Your task to perform on an android device: Go to privacy settings Image 0: 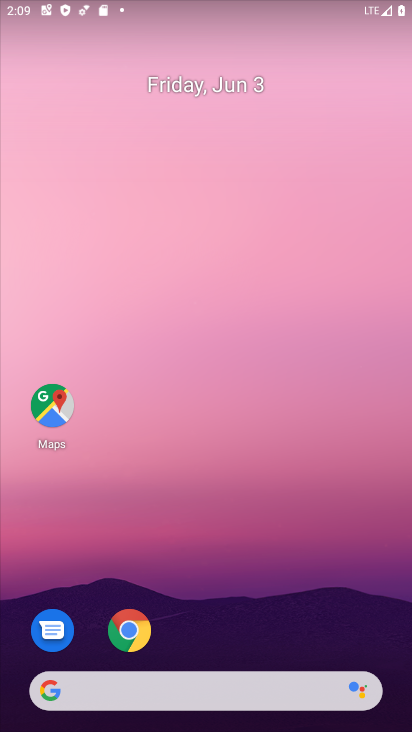
Step 0: drag from (226, 729) to (195, 134)
Your task to perform on an android device: Go to privacy settings Image 1: 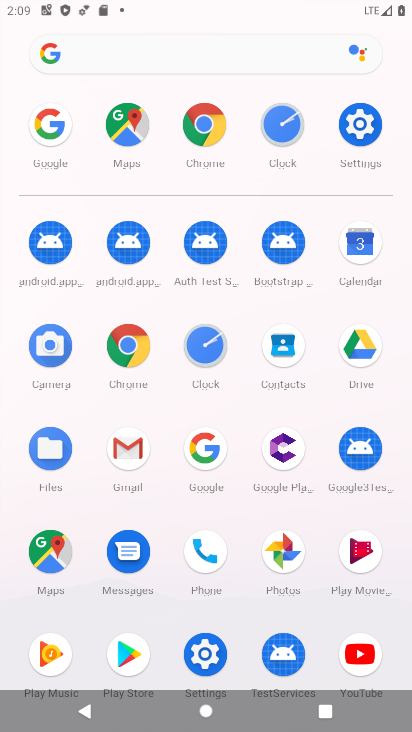
Step 1: click (372, 124)
Your task to perform on an android device: Go to privacy settings Image 2: 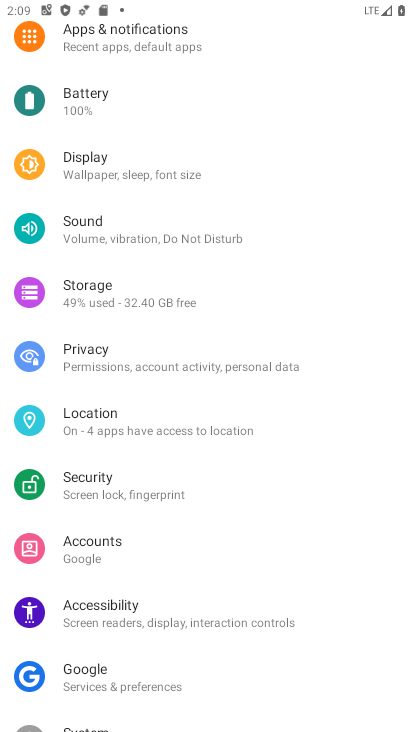
Step 2: click (86, 351)
Your task to perform on an android device: Go to privacy settings Image 3: 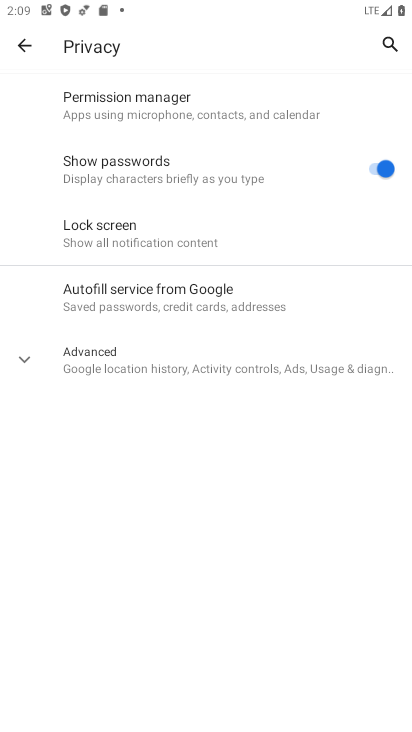
Step 3: task complete